Your task to perform on an android device: Search for Mexican restaurants on Maps Image 0: 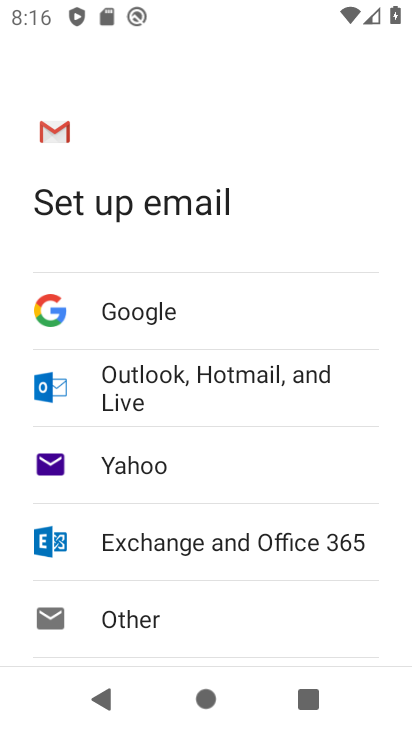
Step 0: press home button
Your task to perform on an android device: Search for Mexican restaurants on Maps Image 1: 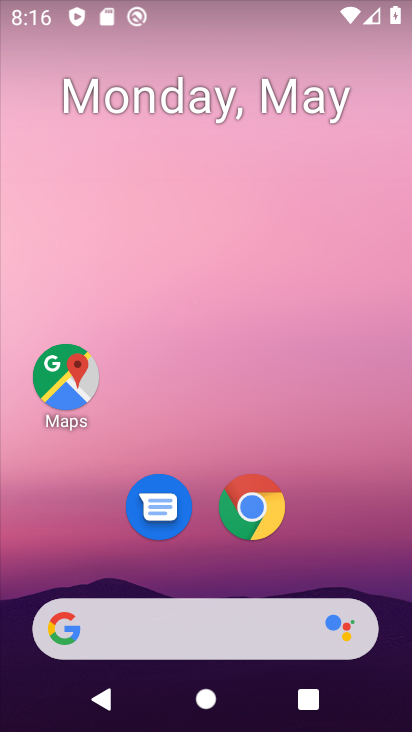
Step 1: click (58, 374)
Your task to perform on an android device: Search for Mexican restaurants on Maps Image 2: 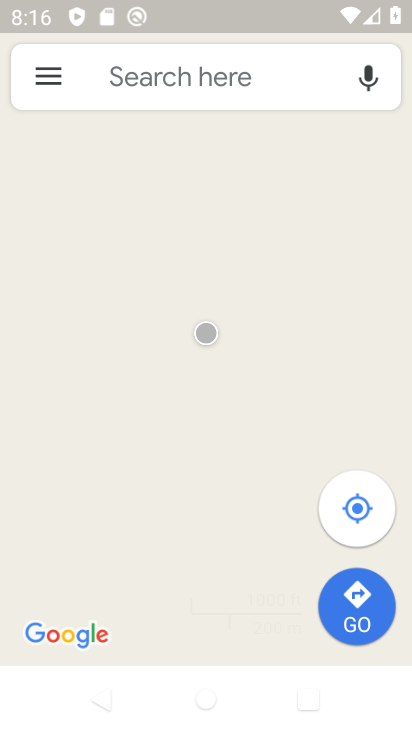
Step 2: click (129, 88)
Your task to perform on an android device: Search for Mexican restaurants on Maps Image 3: 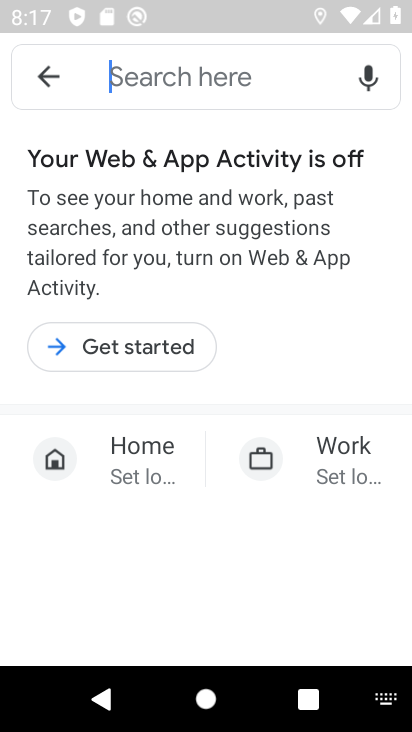
Step 3: type "mexican"
Your task to perform on an android device: Search for Mexican restaurants on Maps Image 4: 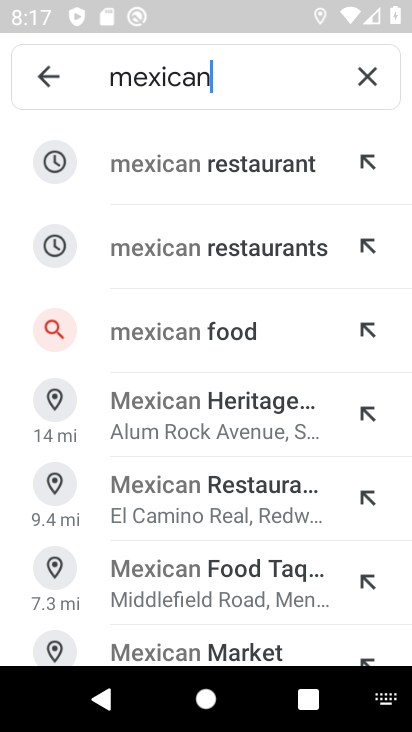
Step 4: click (239, 168)
Your task to perform on an android device: Search for Mexican restaurants on Maps Image 5: 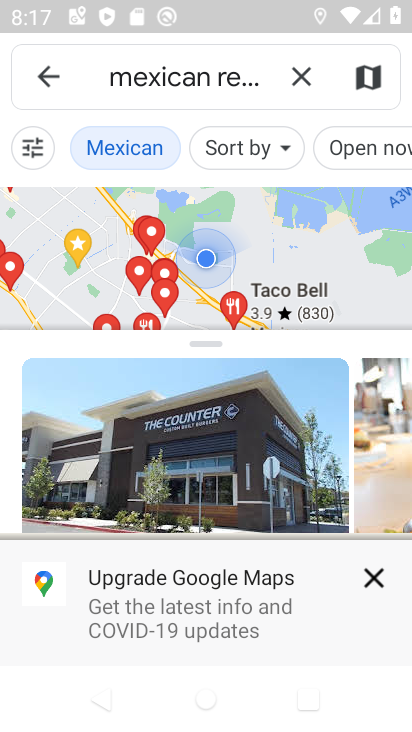
Step 5: task complete